Your task to perform on an android device: Open Android settings Image 0: 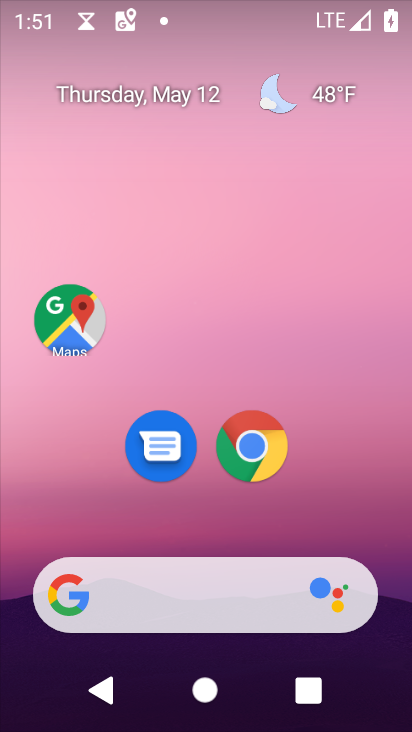
Step 0: drag from (306, 463) to (312, 60)
Your task to perform on an android device: Open Android settings Image 1: 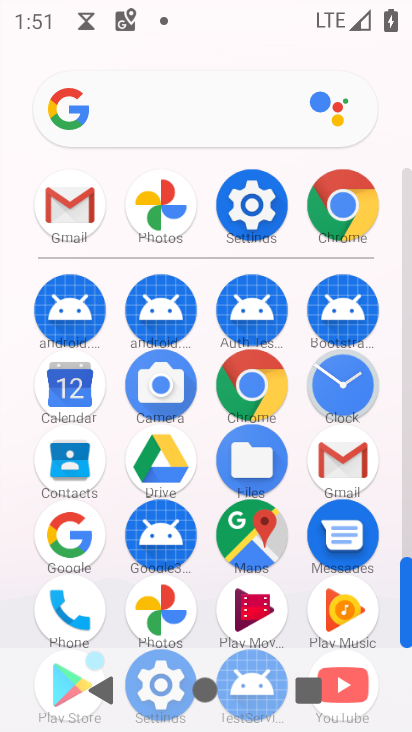
Step 1: click (252, 217)
Your task to perform on an android device: Open Android settings Image 2: 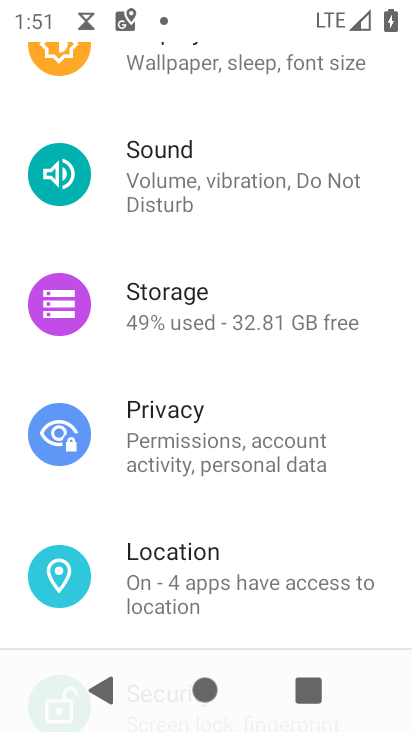
Step 2: drag from (281, 542) to (272, 76)
Your task to perform on an android device: Open Android settings Image 3: 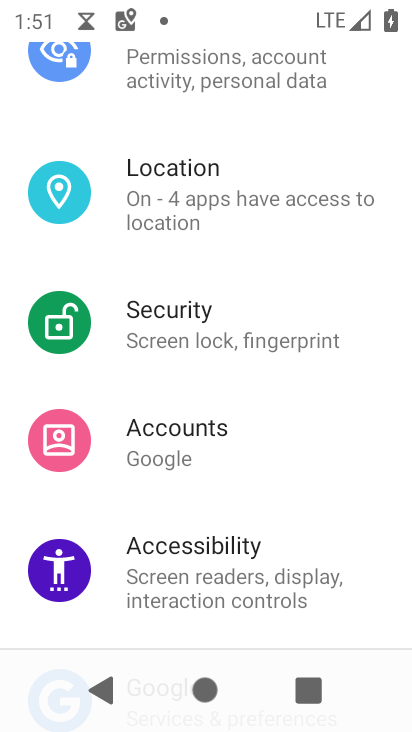
Step 3: drag from (231, 493) to (250, 95)
Your task to perform on an android device: Open Android settings Image 4: 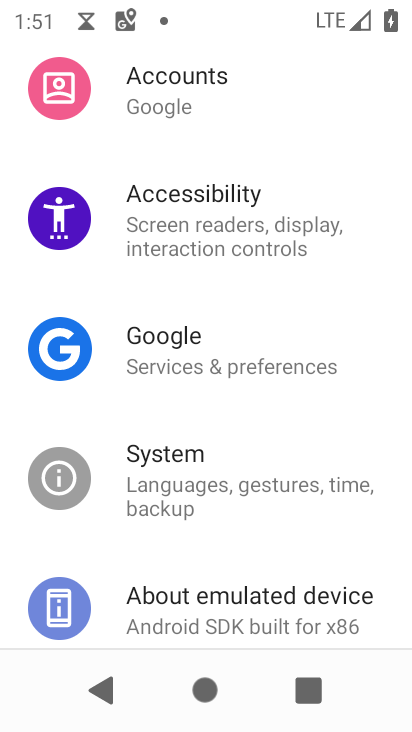
Step 4: drag from (235, 513) to (273, 127)
Your task to perform on an android device: Open Android settings Image 5: 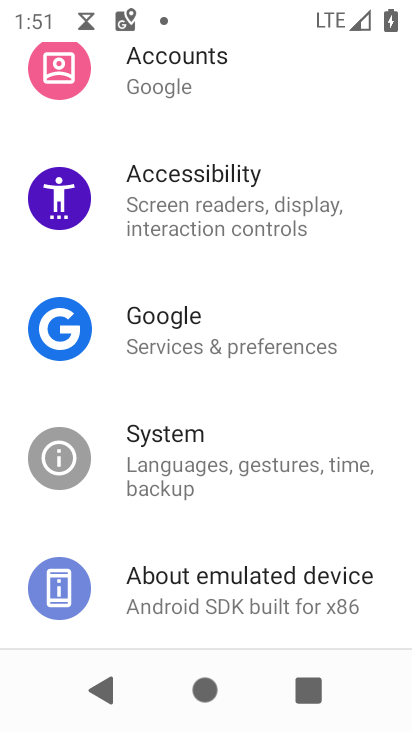
Step 5: click (234, 604)
Your task to perform on an android device: Open Android settings Image 6: 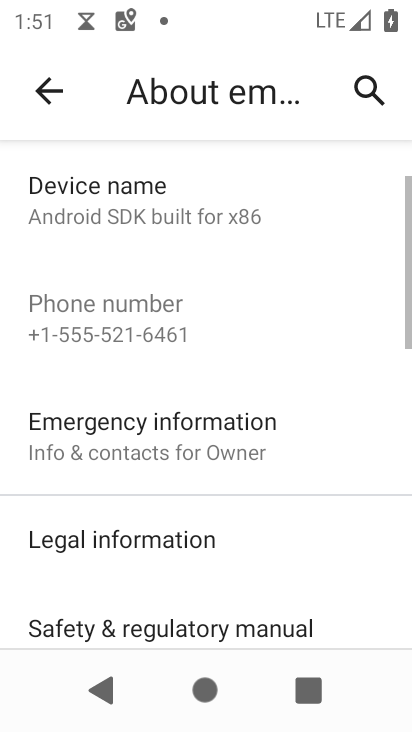
Step 6: drag from (248, 537) to (279, 173)
Your task to perform on an android device: Open Android settings Image 7: 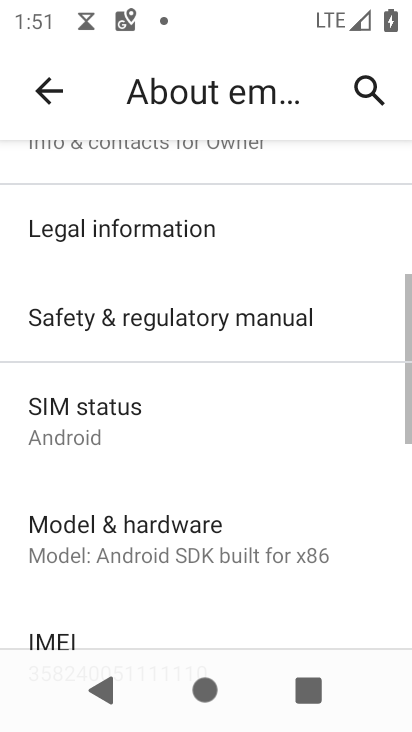
Step 7: drag from (221, 531) to (272, 173)
Your task to perform on an android device: Open Android settings Image 8: 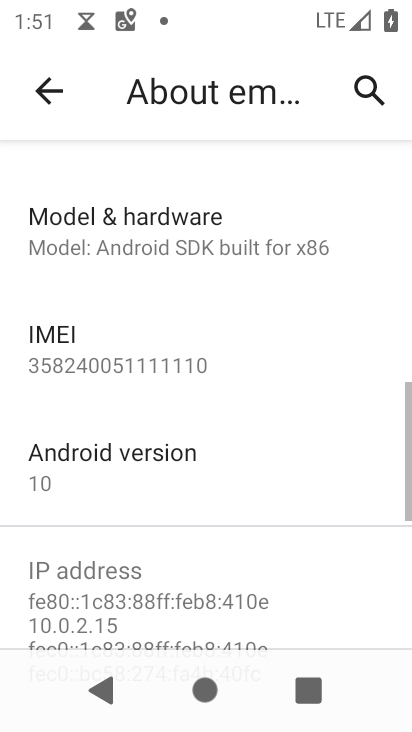
Step 8: click (163, 482)
Your task to perform on an android device: Open Android settings Image 9: 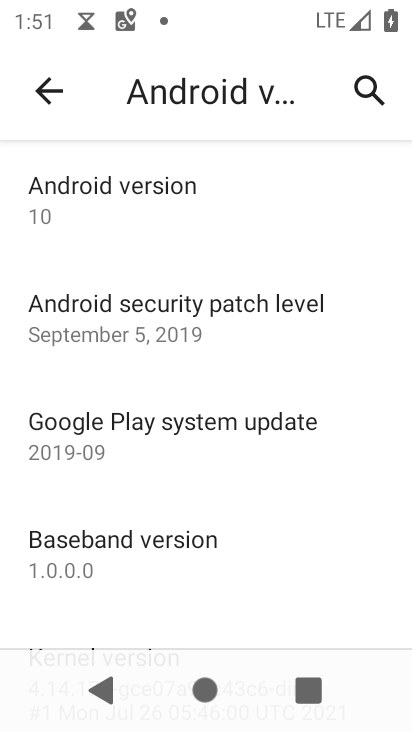
Step 9: task complete